Your task to perform on an android device: Search for "alienware area 51" on newegg, select the first entry, and add it to the cart. Image 0: 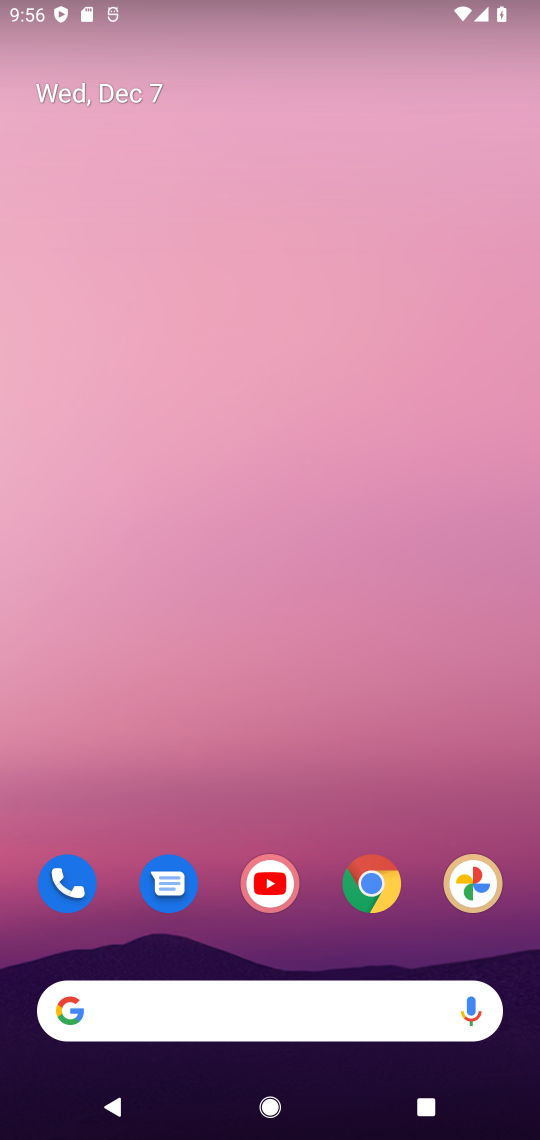
Step 0: drag from (226, 968) to (328, 23)
Your task to perform on an android device: Search for "alienware area 51" on newegg, select the first entry, and add it to the cart. Image 1: 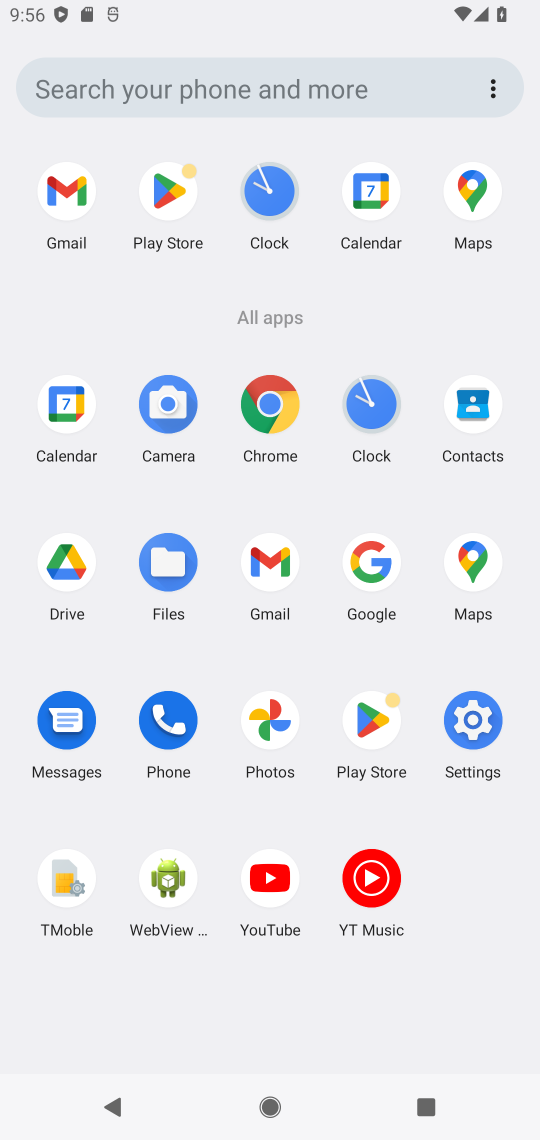
Step 1: click (380, 560)
Your task to perform on an android device: Search for "alienware area 51" on newegg, select the first entry, and add it to the cart. Image 2: 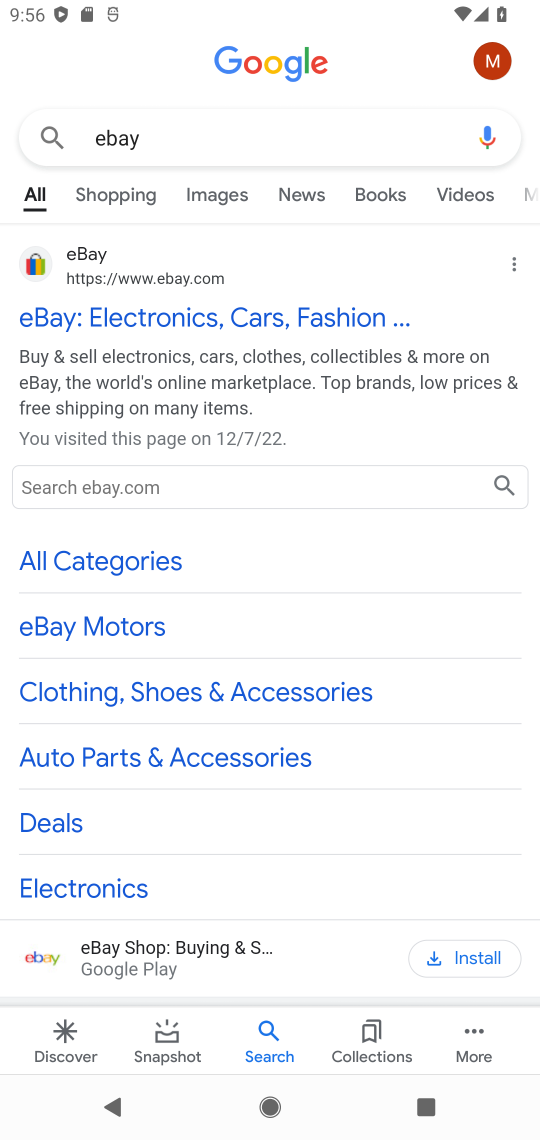
Step 2: click (385, 138)
Your task to perform on an android device: Search for "alienware area 51" on newegg, select the first entry, and add it to the cart. Image 3: 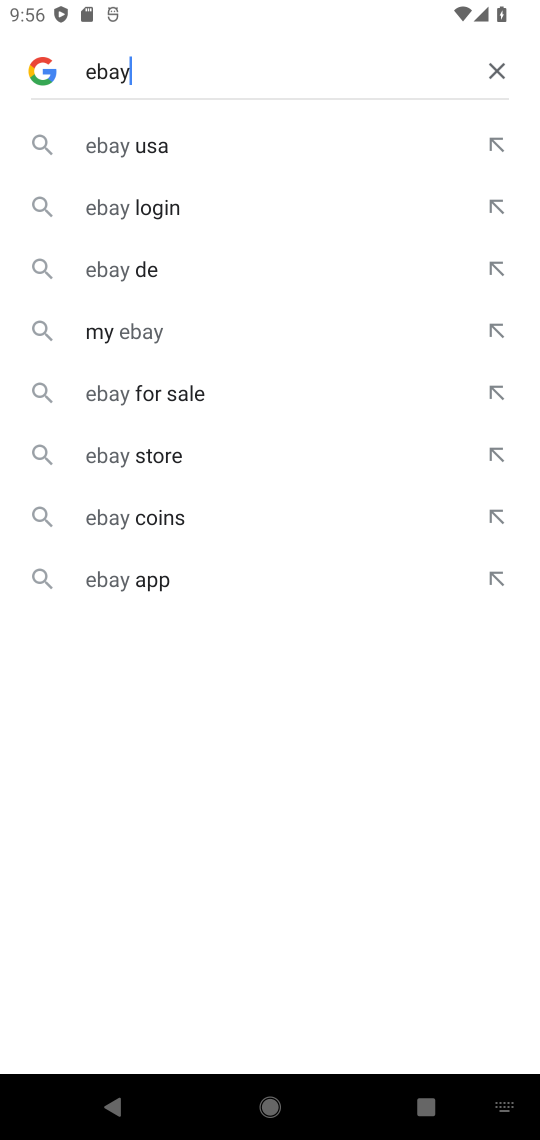
Step 3: click (494, 74)
Your task to perform on an android device: Search for "alienware area 51" on newegg, select the first entry, and add it to the cart. Image 4: 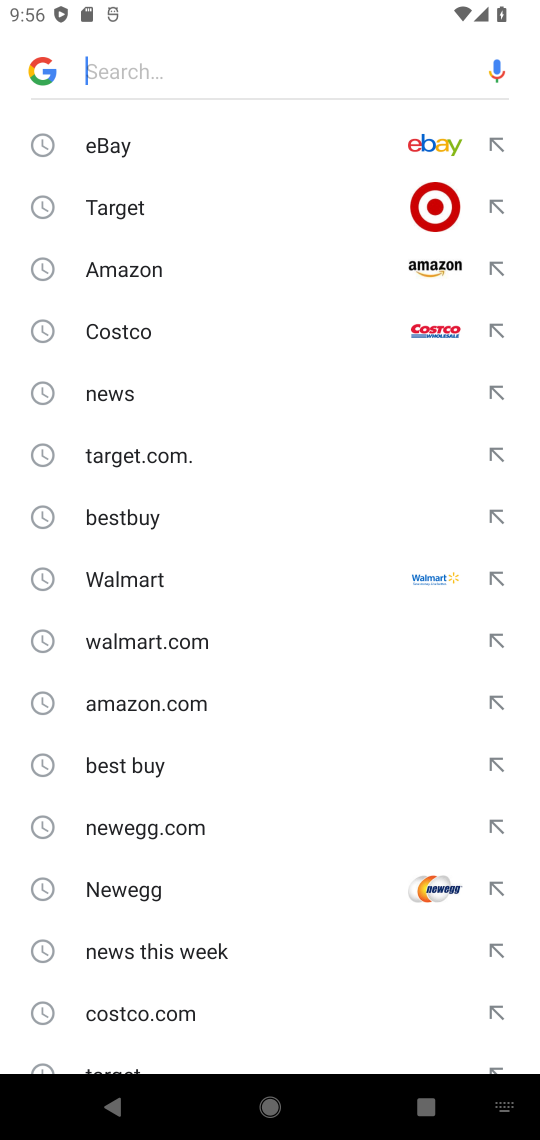
Step 4: click (149, 828)
Your task to perform on an android device: Search for "alienware area 51" on newegg, select the first entry, and add it to the cart. Image 5: 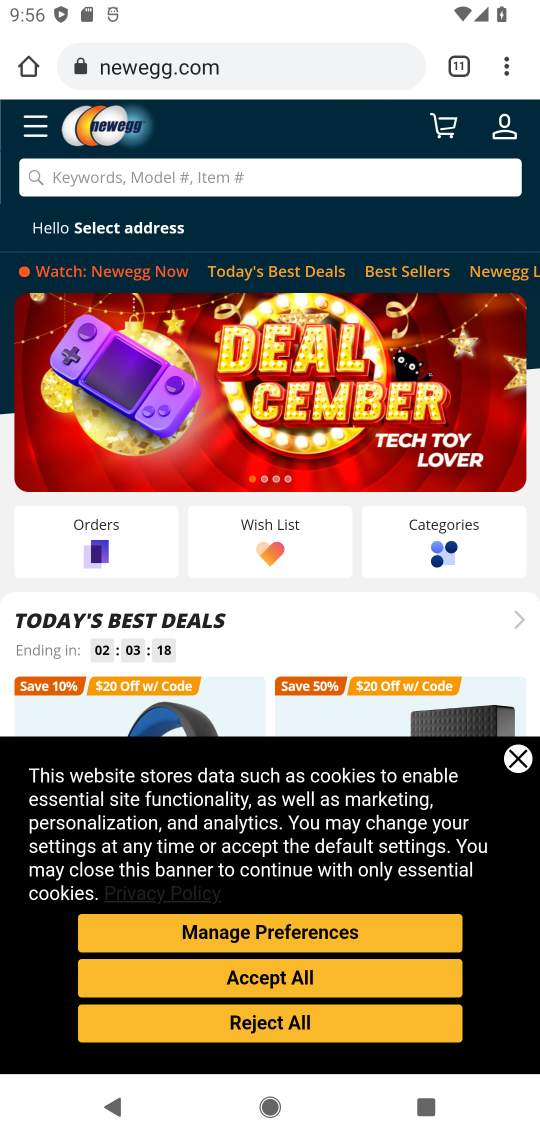
Step 5: click (241, 174)
Your task to perform on an android device: Search for "alienware area 51" on newegg, select the first entry, and add it to the cart. Image 6: 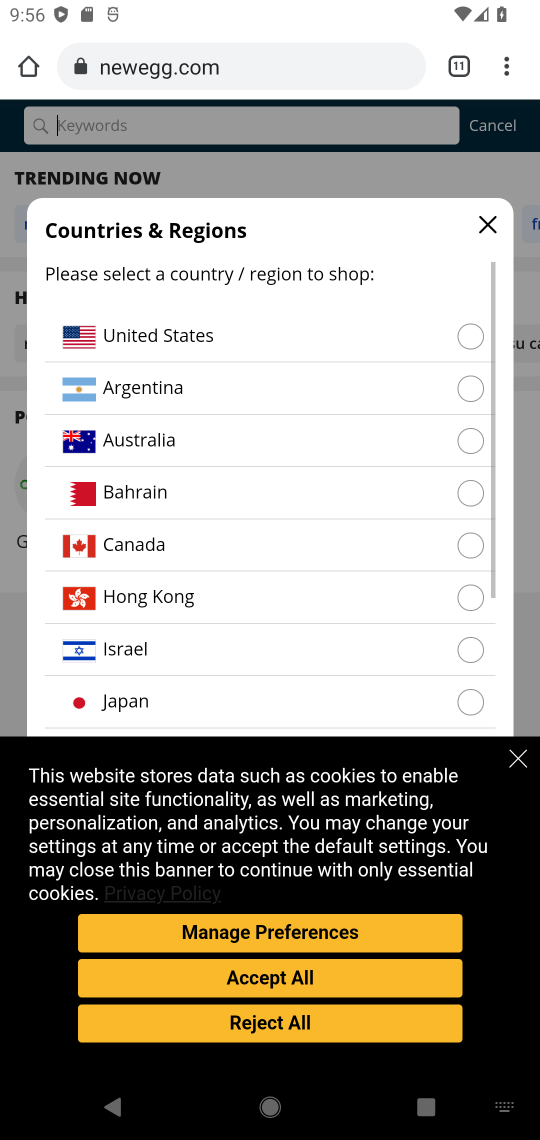
Step 6: type "alienware area 51"
Your task to perform on an android device: Search for "alienware area 51" on newegg, select the first entry, and add it to the cart. Image 7: 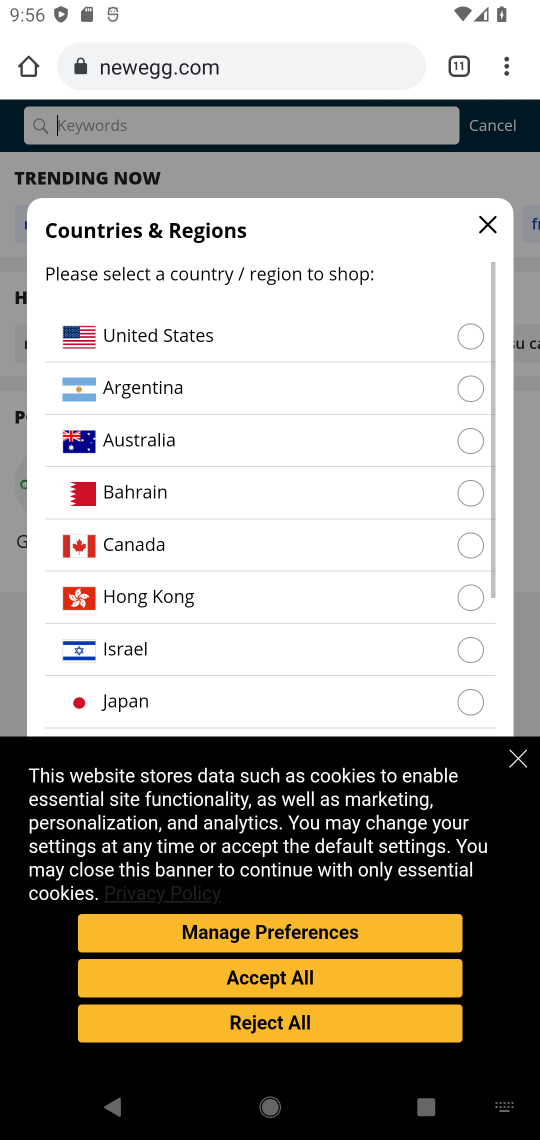
Step 7: click (483, 224)
Your task to perform on an android device: Search for "alienware area 51" on newegg, select the first entry, and add it to the cart. Image 8: 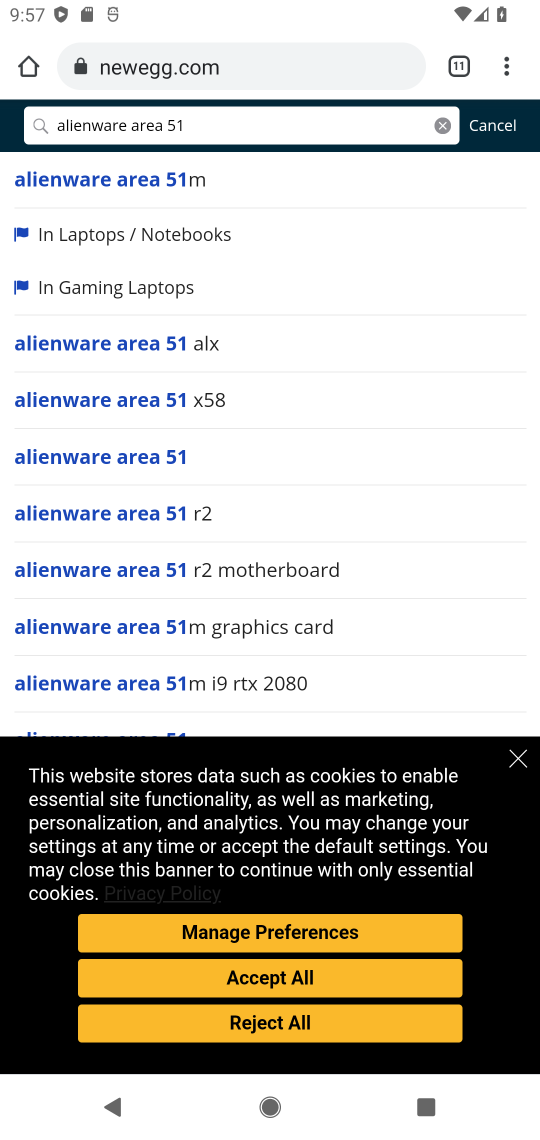
Step 8: click (128, 332)
Your task to perform on an android device: Search for "alienware area 51" on newegg, select the first entry, and add it to the cart. Image 9: 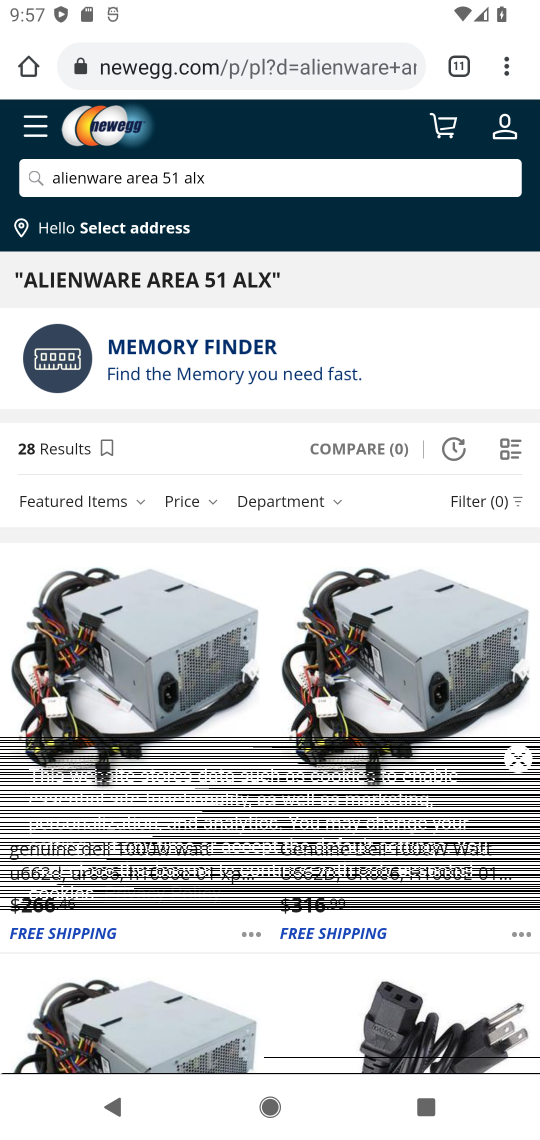
Step 9: click (138, 629)
Your task to perform on an android device: Search for "alienware area 51" on newegg, select the first entry, and add it to the cart. Image 10: 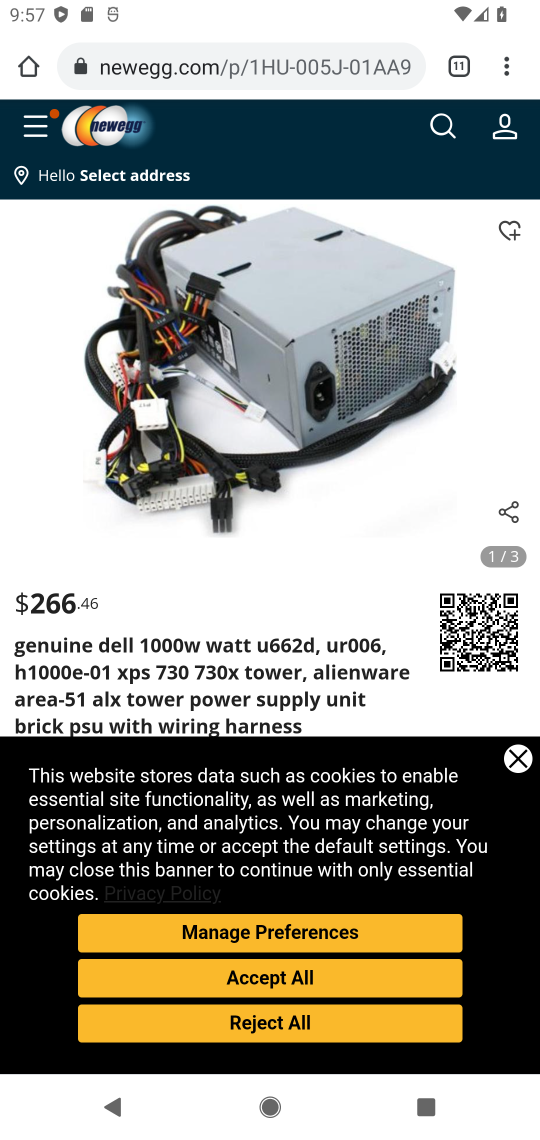
Step 10: click (521, 754)
Your task to perform on an android device: Search for "alienware area 51" on newegg, select the first entry, and add it to the cart. Image 11: 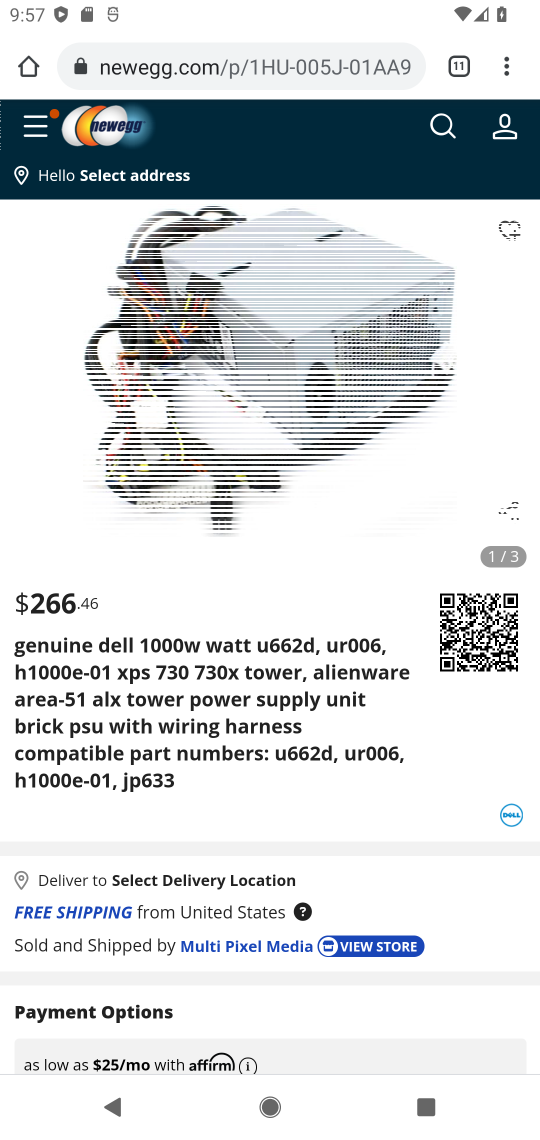
Step 11: click (286, 1039)
Your task to perform on an android device: Search for "alienware area 51" on newegg, select the first entry, and add it to the cart. Image 12: 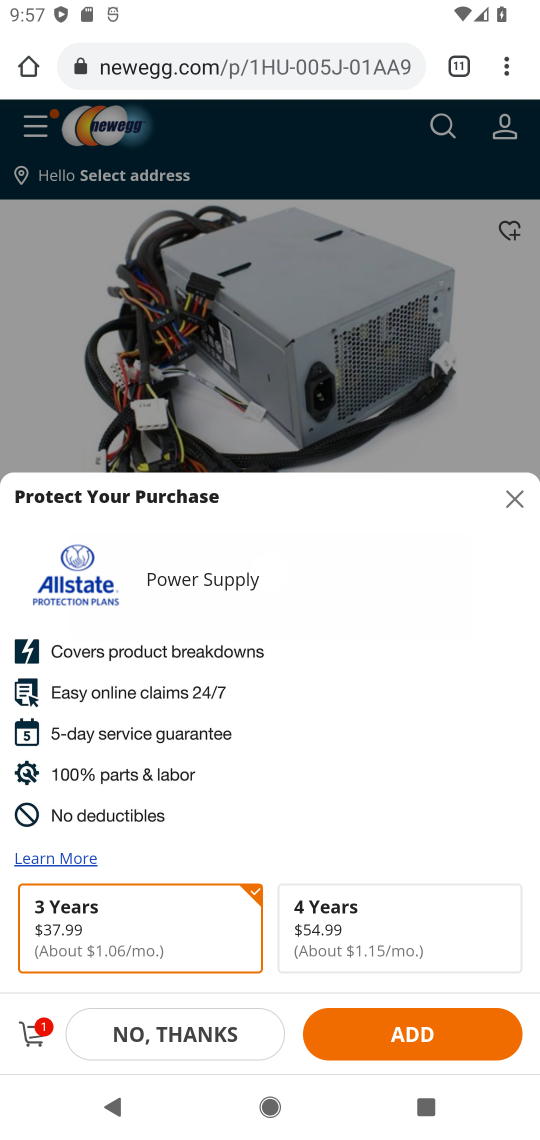
Step 12: task complete